Your task to perform on an android device: turn on bluetooth scan Image 0: 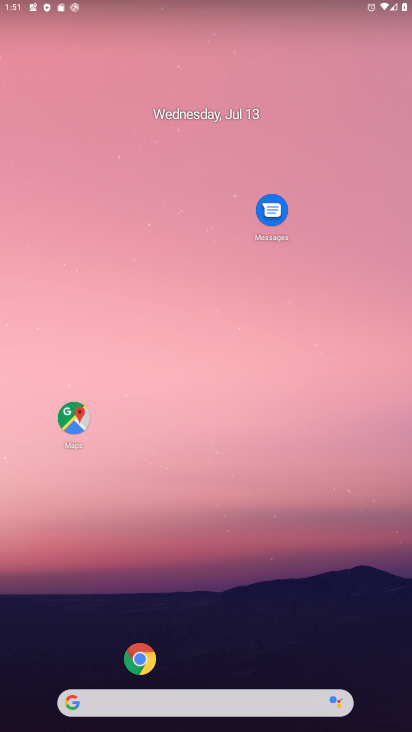
Step 0: drag from (121, 451) to (234, 89)
Your task to perform on an android device: turn on bluetooth scan Image 1: 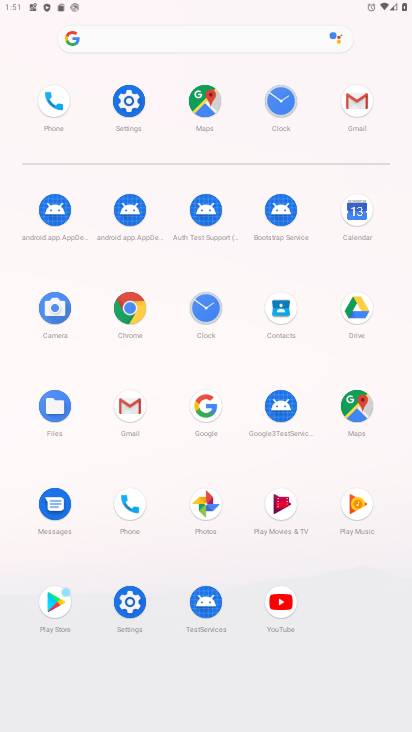
Step 1: click (136, 610)
Your task to perform on an android device: turn on bluetooth scan Image 2: 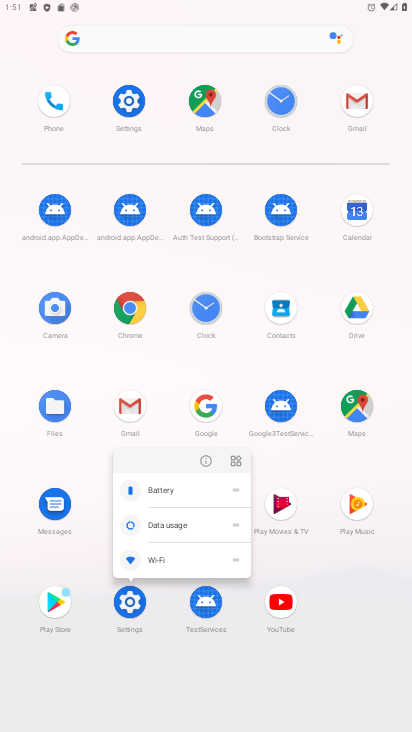
Step 2: click (118, 581)
Your task to perform on an android device: turn on bluetooth scan Image 3: 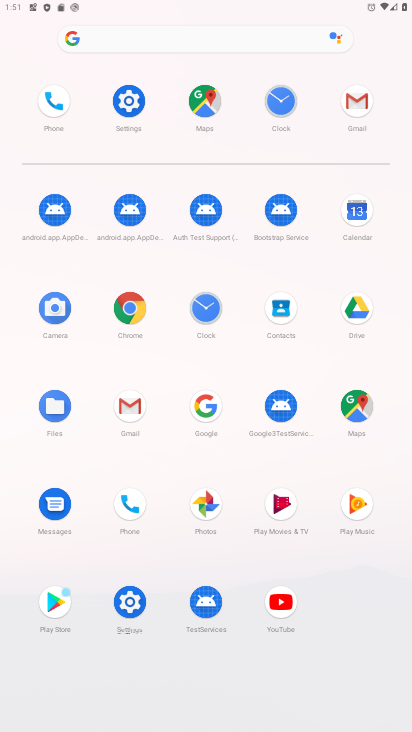
Step 3: click (130, 604)
Your task to perform on an android device: turn on bluetooth scan Image 4: 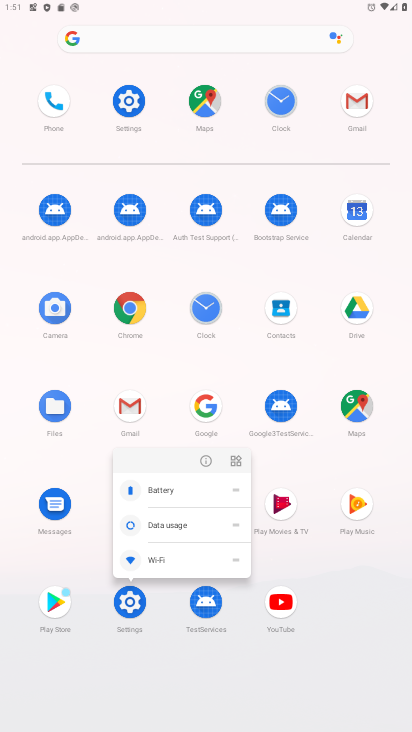
Step 4: click (140, 613)
Your task to perform on an android device: turn on bluetooth scan Image 5: 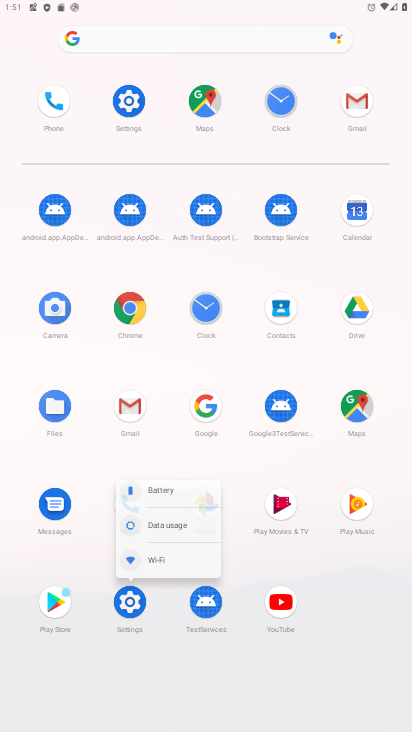
Step 5: click (140, 613)
Your task to perform on an android device: turn on bluetooth scan Image 6: 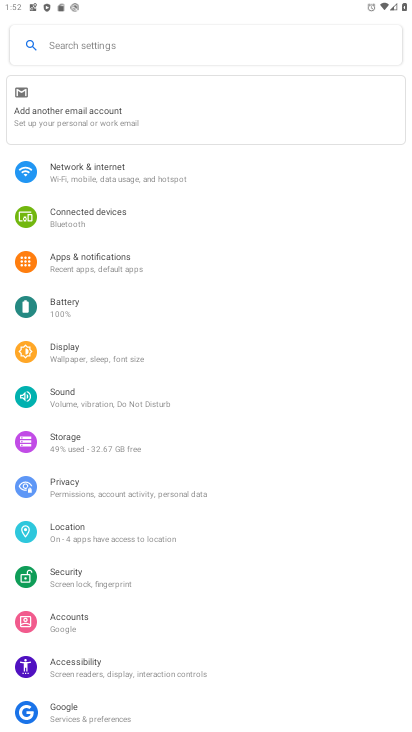
Step 6: click (104, 217)
Your task to perform on an android device: turn on bluetooth scan Image 7: 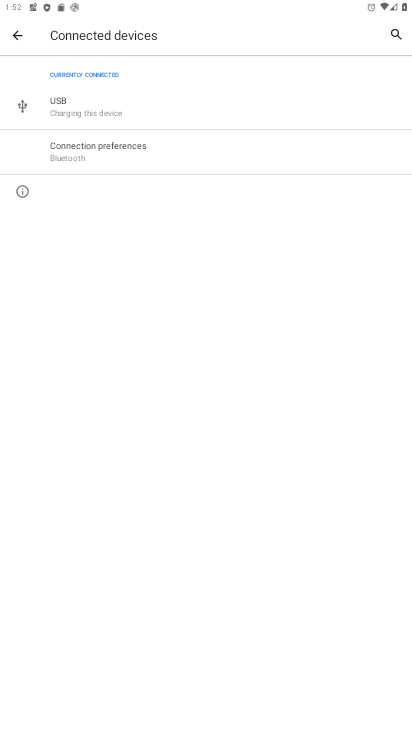
Step 7: click (103, 155)
Your task to perform on an android device: turn on bluetooth scan Image 8: 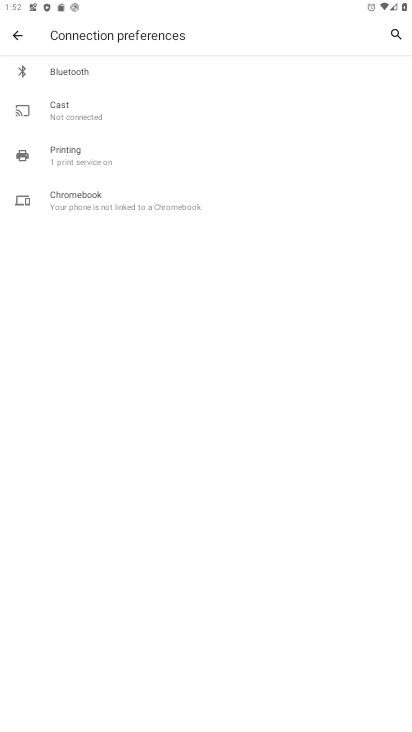
Step 8: click (81, 71)
Your task to perform on an android device: turn on bluetooth scan Image 9: 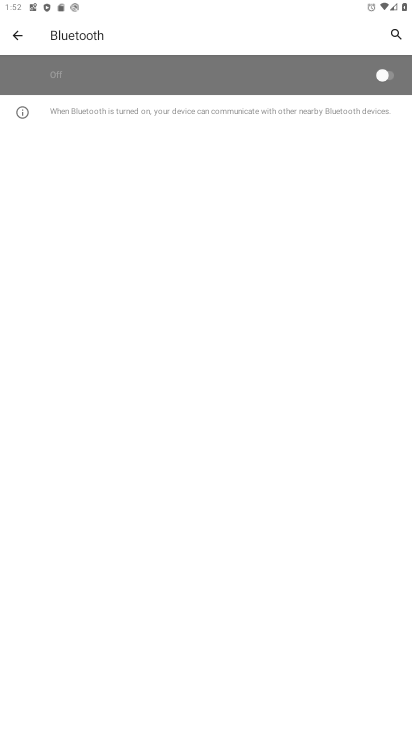
Step 9: click (383, 72)
Your task to perform on an android device: turn on bluetooth scan Image 10: 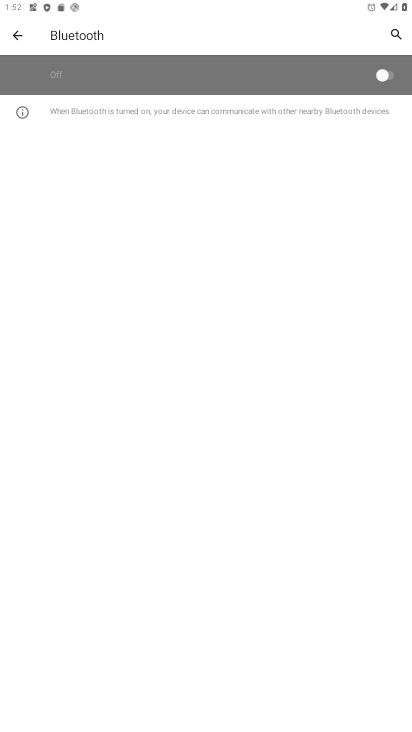
Step 10: task complete